Your task to perform on an android device: change notifications settings Image 0: 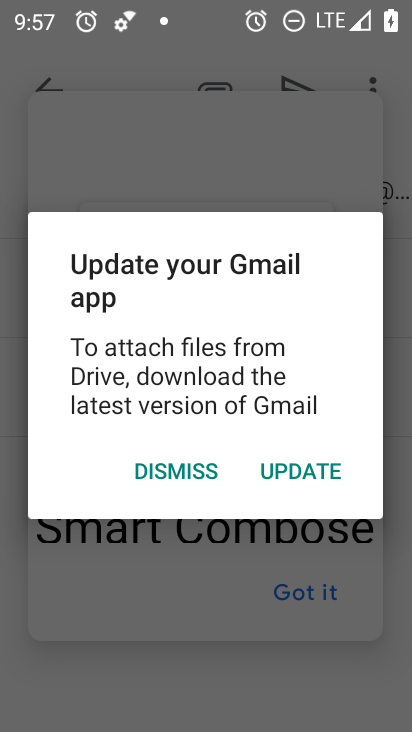
Step 0: press back button
Your task to perform on an android device: change notifications settings Image 1: 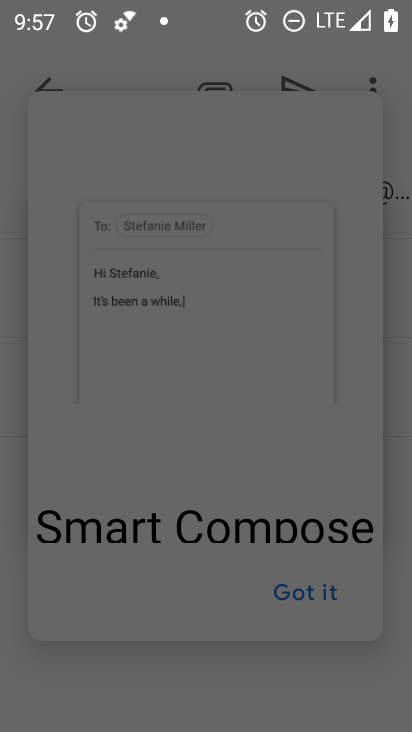
Step 1: press home button
Your task to perform on an android device: change notifications settings Image 2: 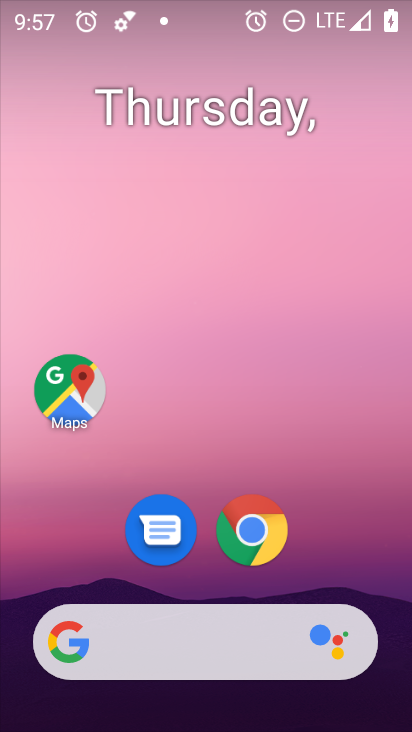
Step 2: drag from (337, 557) to (263, 39)
Your task to perform on an android device: change notifications settings Image 3: 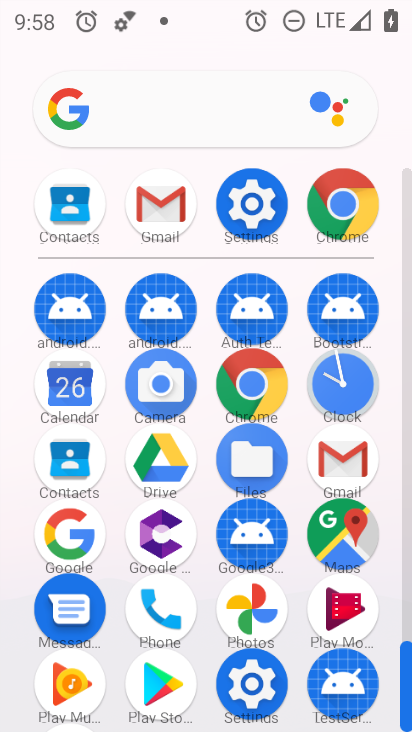
Step 3: drag from (19, 623) to (2, 278)
Your task to perform on an android device: change notifications settings Image 4: 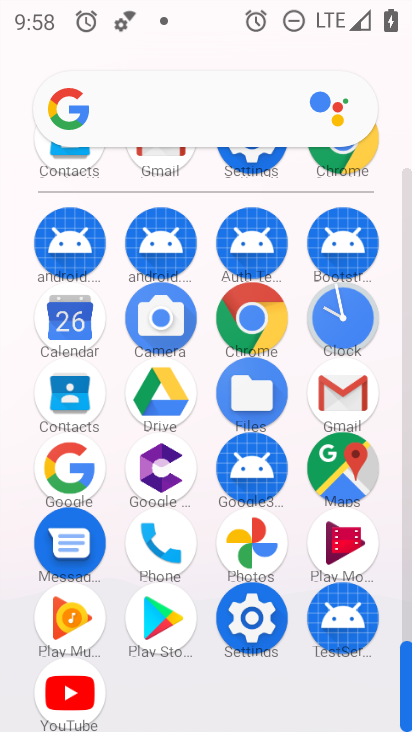
Step 4: click (245, 618)
Your task to perform on an android device: change notifications settings Image 5: 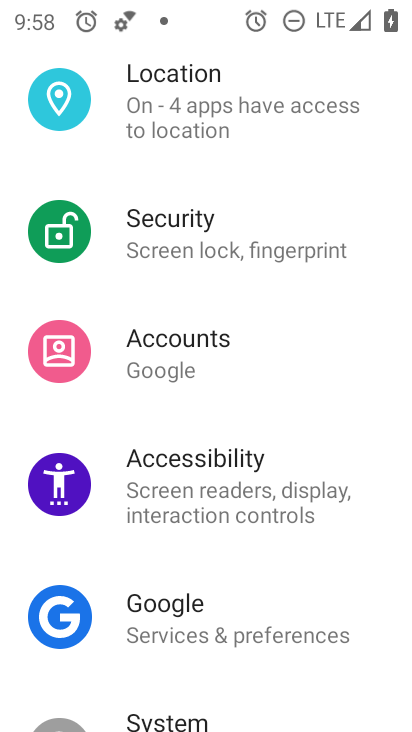
Step 5: drag from (276, 220) to (299, 620)
Your task to perform on an android device: change notifications settings Image 6: 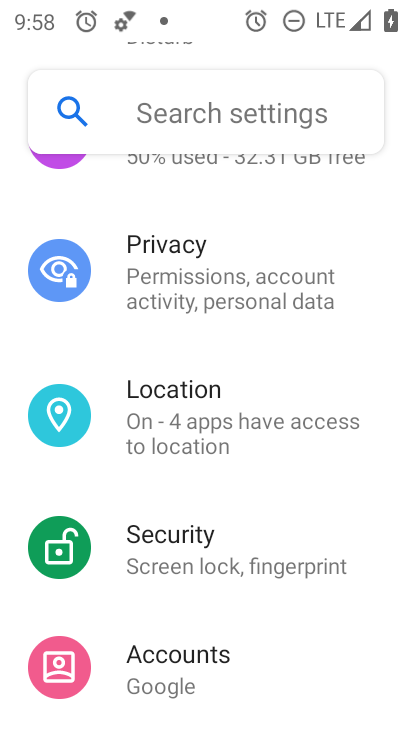
Step 6: drag from (277, 244) to (281, 574)
Your task to perform on an android device: change notifications settings Image 7: 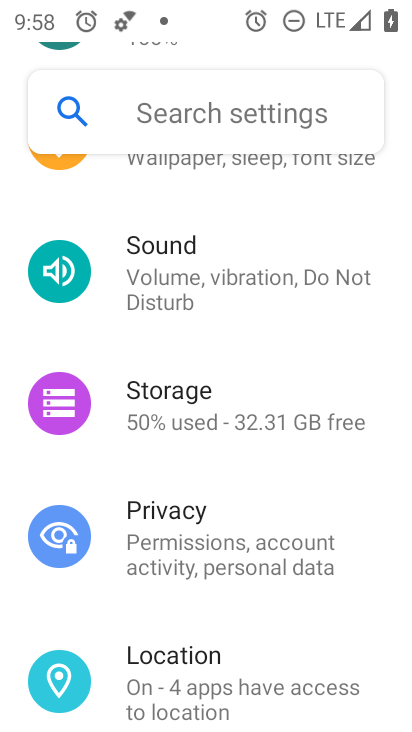
Step 7: drag from (278, 218) to (282, 563)
Your task to perform on an android device: change notifications settings Image 8: 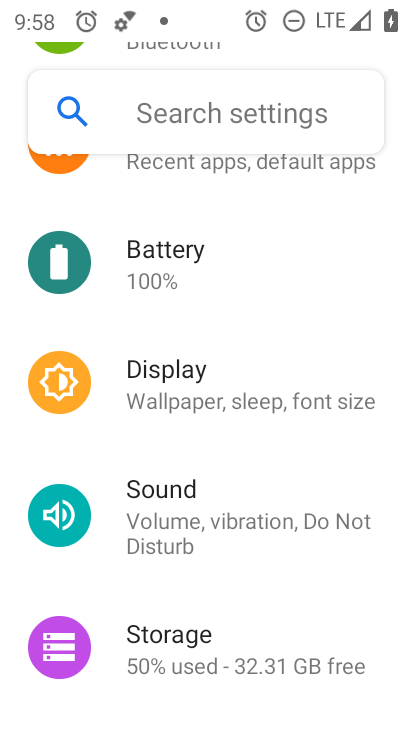
Step 8: drag from (294, 252) to (294, 476)
Your task to perform on an android device: change notifications settings Image 9: 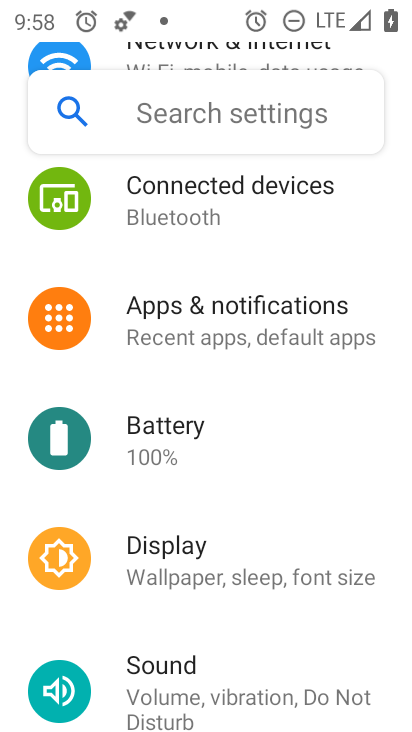
Step 9: click (269, 311)
Your task to perform on an android device: change notifications settings Image 10: 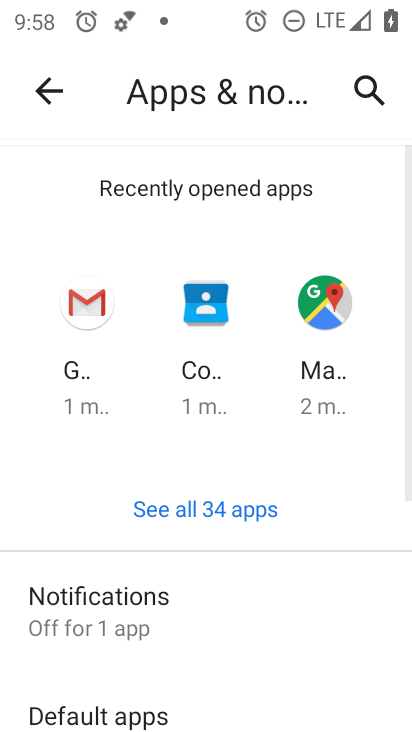
Step 10: drag from (303, 616) to (286, 266)
Your task to perform on an android device: change notifications settings Image 11: 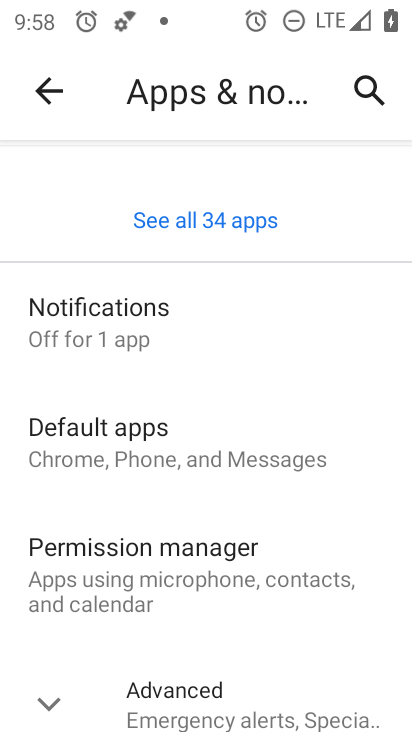
Step 11: drag from (224, 530) to (196, 207)
Your task to perform on an android device: change notifications settings Image 12: 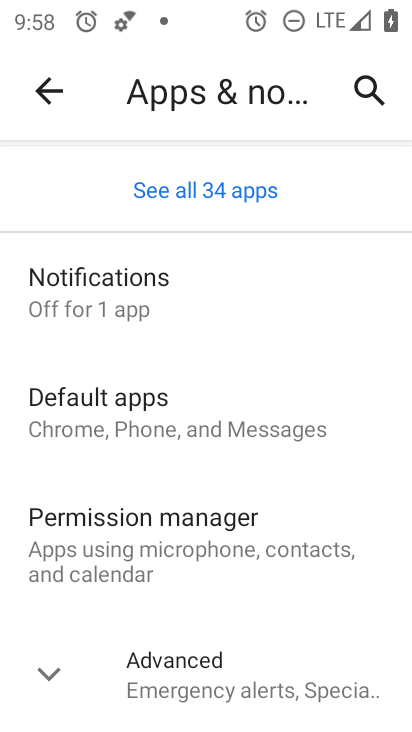
Step 12: click (58, 682)
Your task to perform on an android device: change notifications settings Image 13: 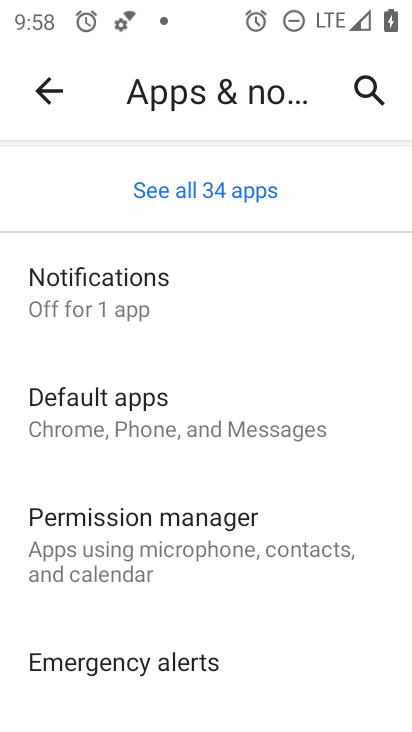
Step 13: drag from (220, 605) to (204, 162)
Your task to perform on an android device: change notifications settings Image 14: 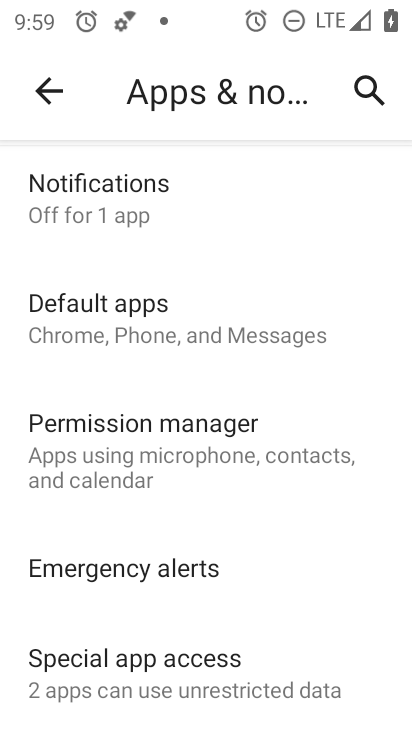
Step 14: click (163, 194)
Your task to perform on an android device: change notifications settings Image 15: 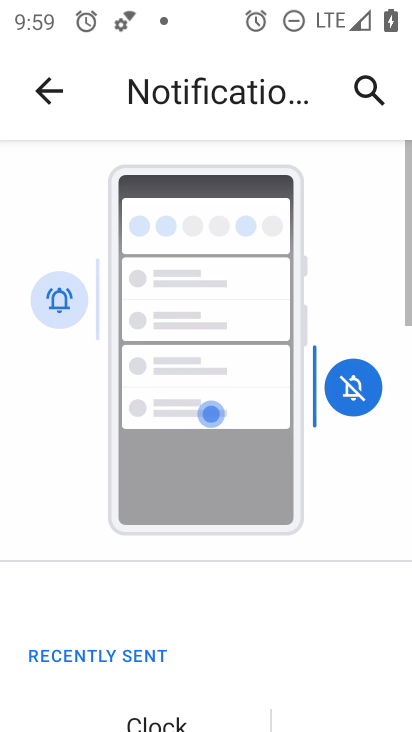
Step 15: task complete